Your task to perform on an android device: Open ESPN.com Image 0: 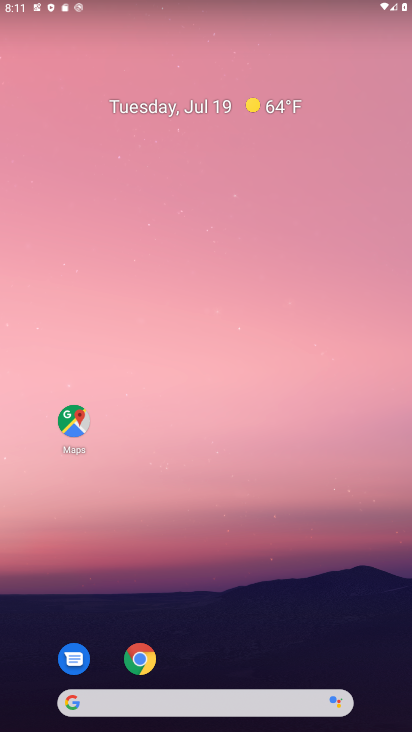
Step 0: click (127, 652)
Your task to perform on an android device: Open ESPN.com Image 1: 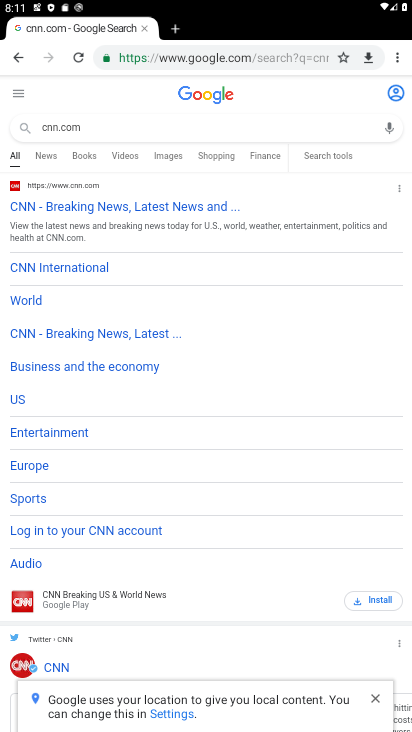
Step 1: click (175, 24)
Your task to perform on an android device: Open ESPN.com Image 2: 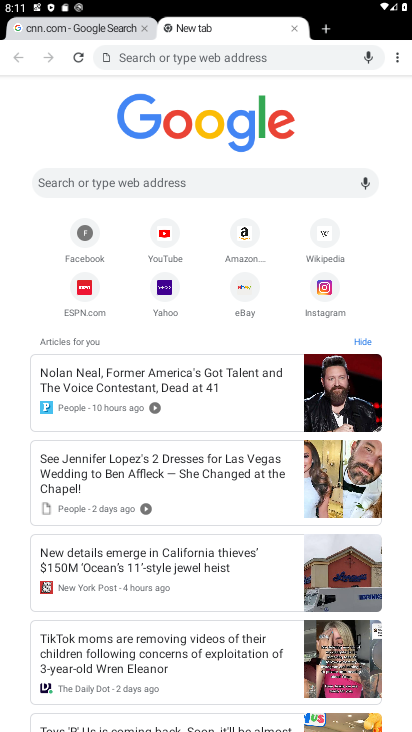
Step 2: click (94, 291)
Your task to perform on an android device: Open ESPN.com Image 3: 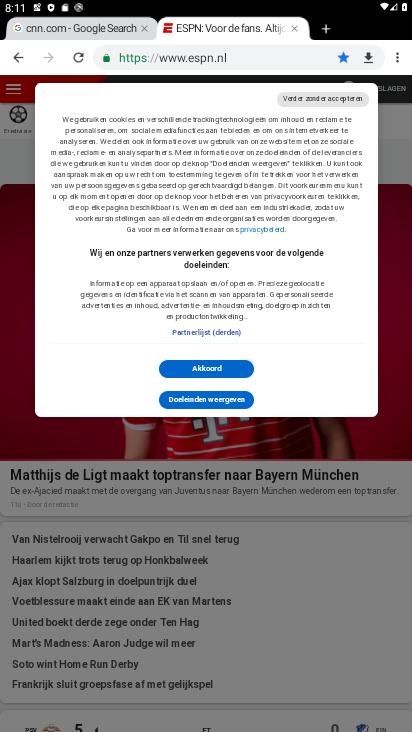
Step 3: task complete